Your task to perform on an android device: What's the weather going to be tomorrow? Image 0: 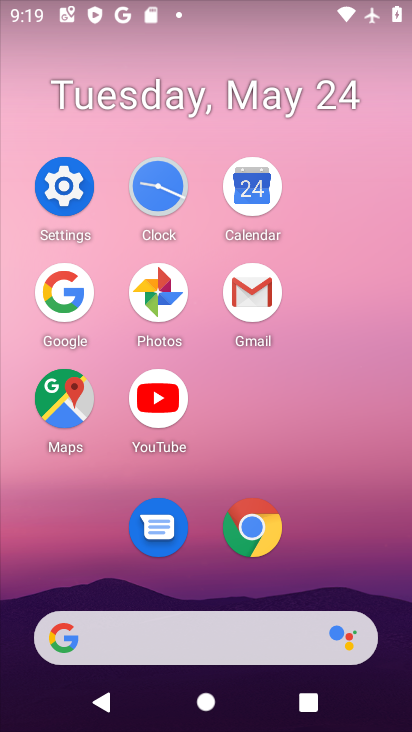
Step 0: click (57, 293)
Your task to perform on an android device: What's the weather going to be tomorrow? Image 1: 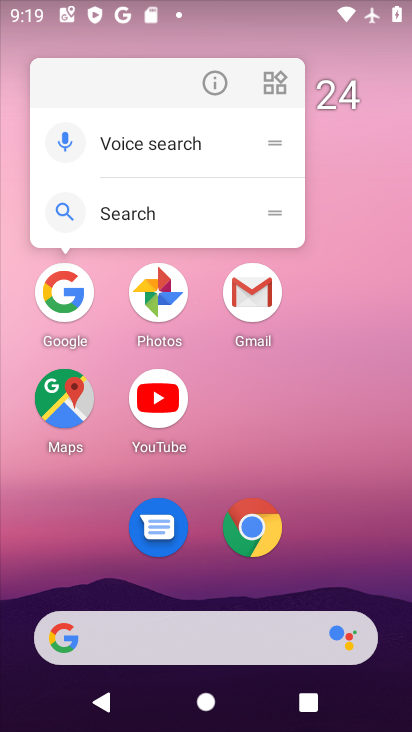
Step 1: click (85, 315)
Your task to perform on an android device: What's the weather going to be tomorrow? Image 2: 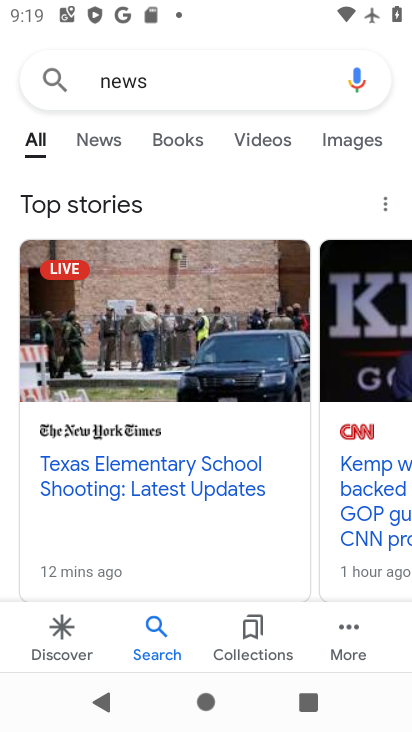
Step 2: click (223, 93)
Your task to perform on an android device: What's the weather going to be tomorrow? Image 3: 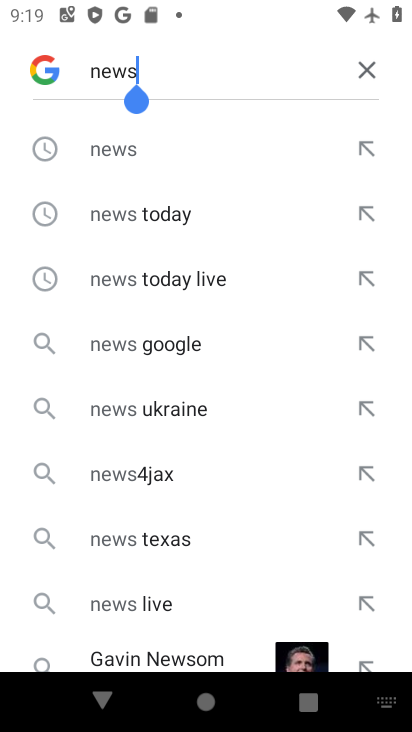
Step 3: click (357, 74)
Your task to perform on an android device: What's the weather going to be tomorrow? Image 4: 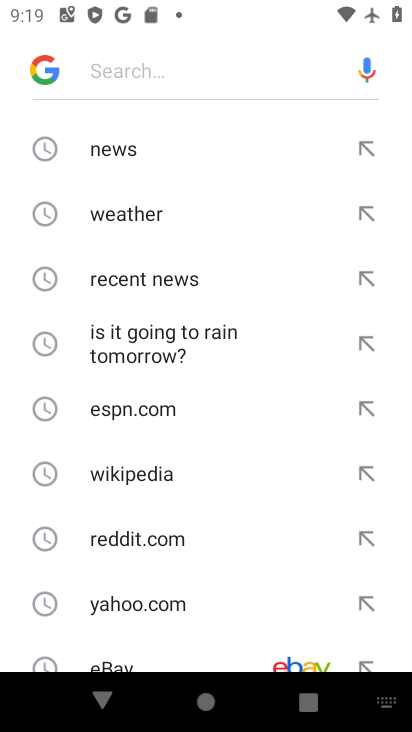
Step 4: click (114, 204)
Your task to perform on an android device: What's the weather going to be tomorrow? Image 5: 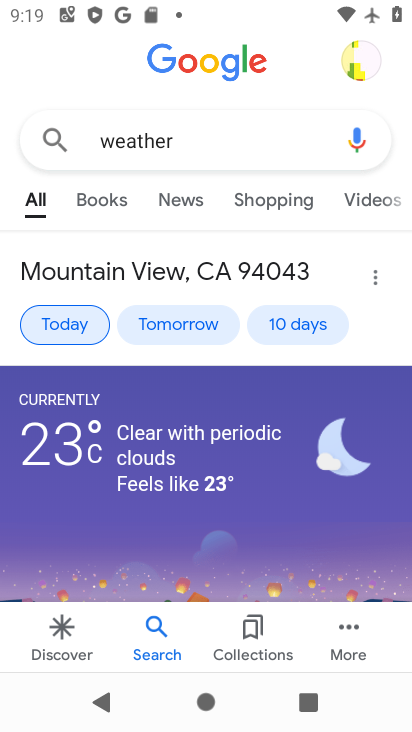
Step 5: click (163, 309)
Your task to perform on an android device: What's the weather going to be tomorrow? Image 6: 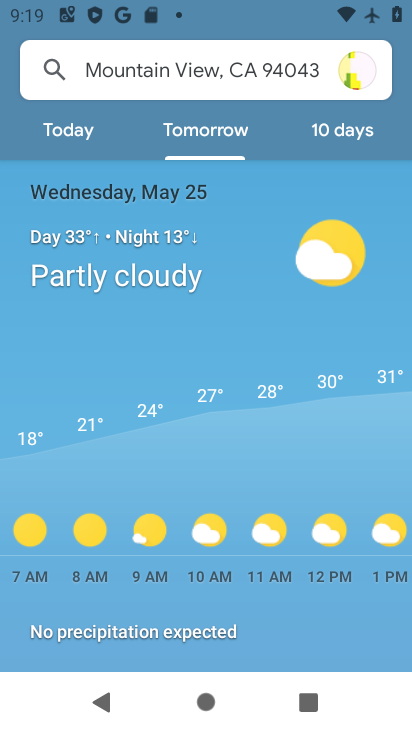
Step 6: task complete